Your task to perform on an android device: set default search engine in the chrome app Image 0: 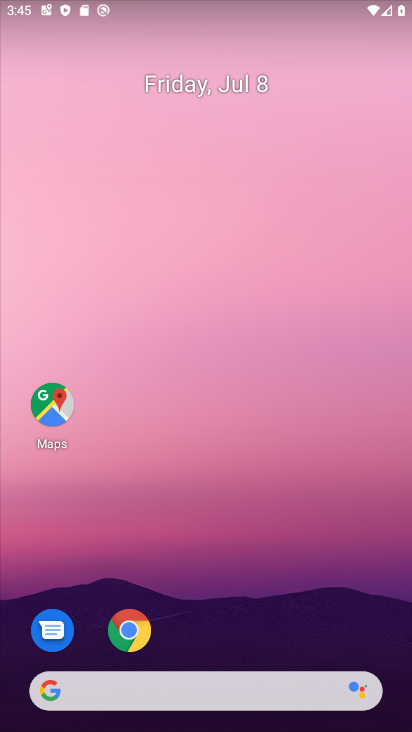
Step 0: click (119, 637)
Your task to perform on an android device: set default search engine in the chrome app Image 1: 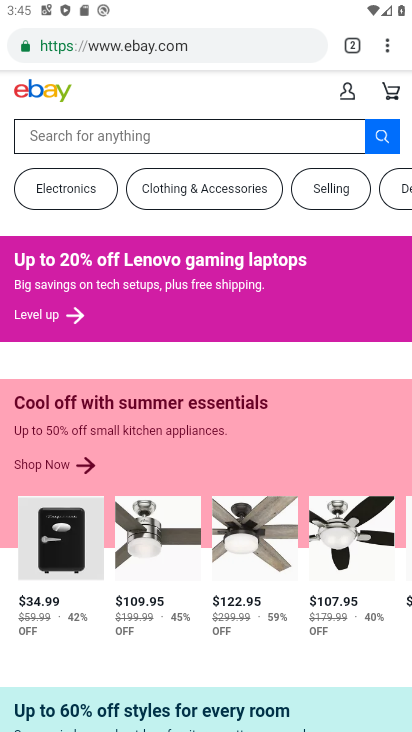
Step 1: click (389, 33)
Your task to perform on an android device: set default search engine in the chrome app Image 2: 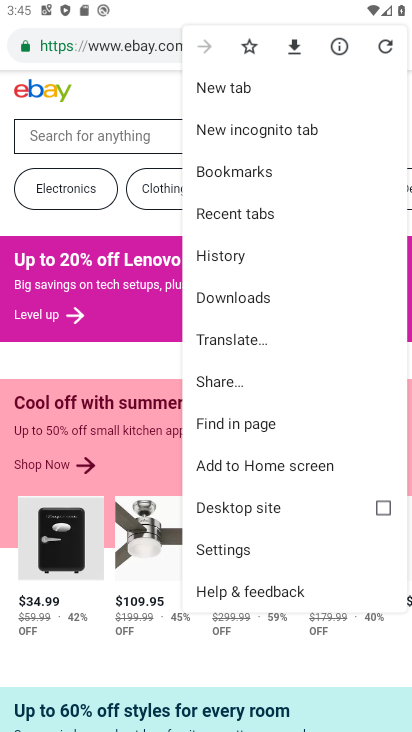
Step 2: click (232, 547)
Your task to perform on an android device: set default search engine in the chrome app Image 3: 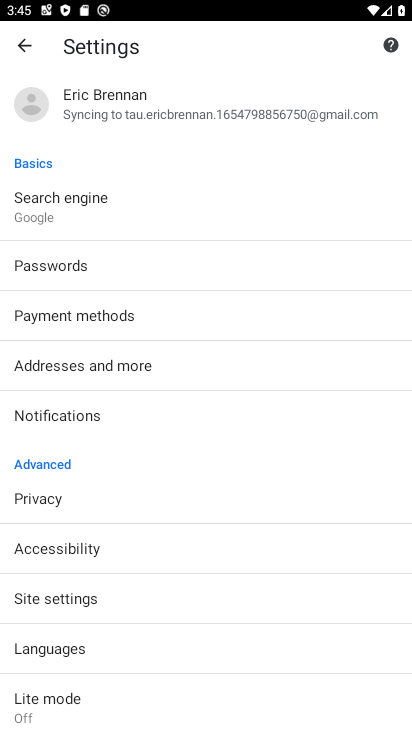
Step 3: click (93, 216)
Your task to perform on an android device: set default search engine in the chrome app Image 4: 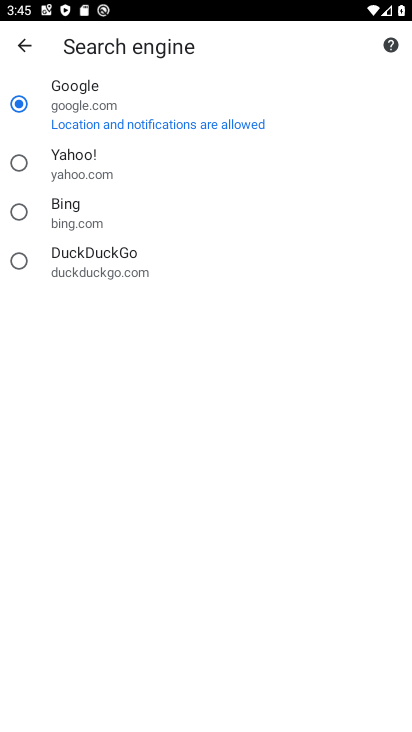
Step 4: click (77, 173)
Your task to perform on an android device: set default search engine in the chrome app Image 5: 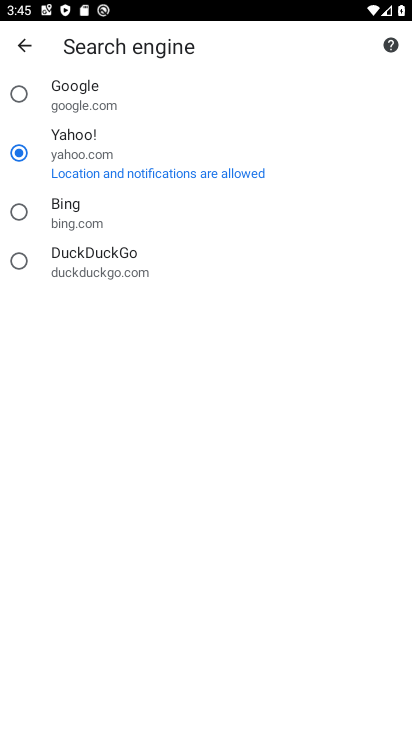
Step 5: task complete